Your task to perform on an android device: turn notification dots off Image 0: 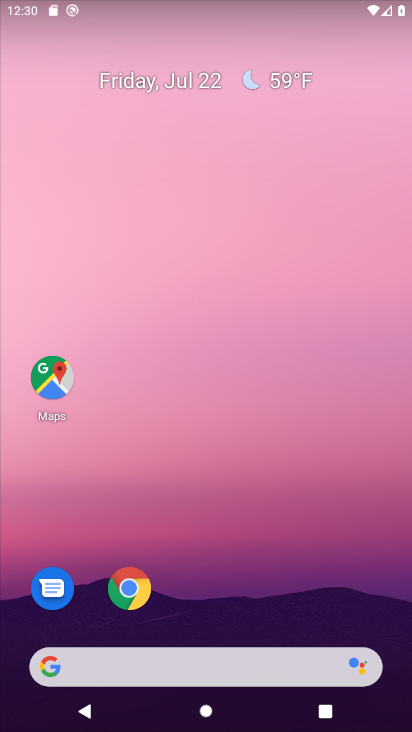
Step 0: drag from (245, 512) to (254, 285)
Your task to perform on an android device: turn notification dots off Image 1: 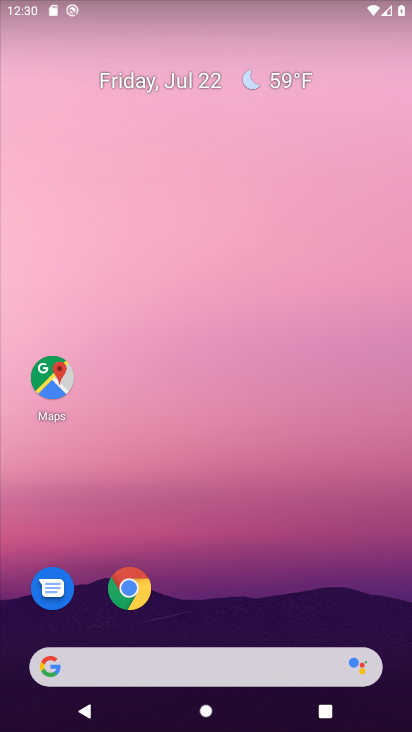
Step 1: drag from (213, 576) to (216, 203)
Your task to perform on an android device: turn notification dots off Image 2: 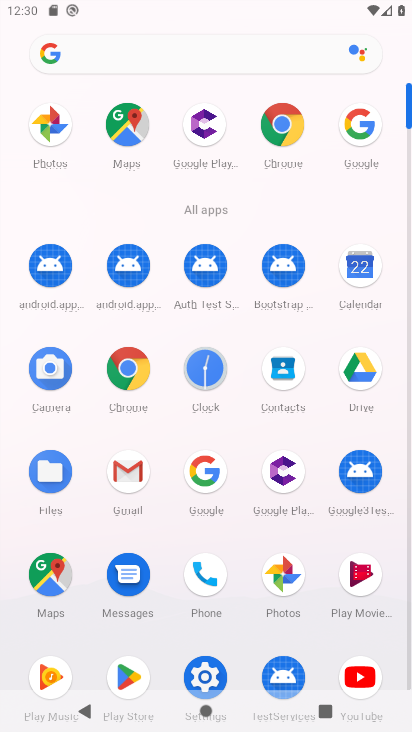
Step 2: click (202, 669)
Your task to perform on an android device: turn notification dots off Image 3: 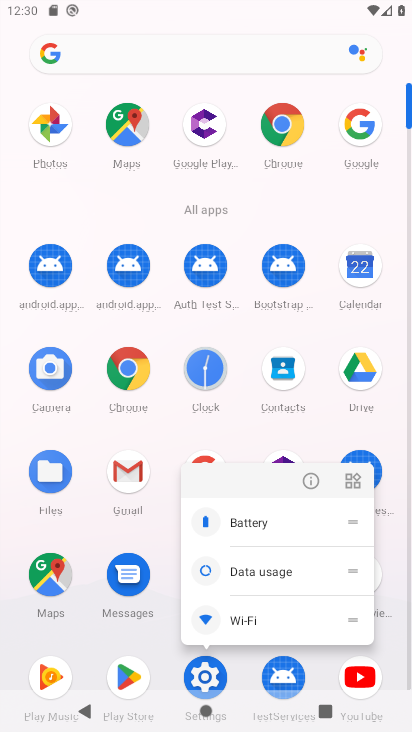
Step 3: click (213, 678)
Your task to perform on an android device: turn notification dots off Image 4: 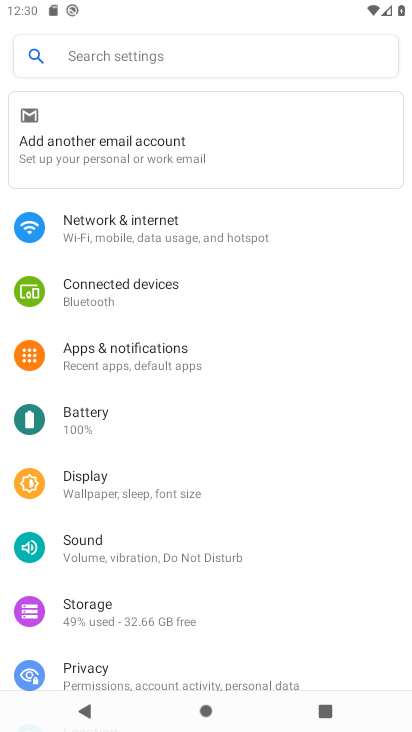
Step 4: click (126, 349)
Your task to perform on an android device: turn notification dots off Image 5: 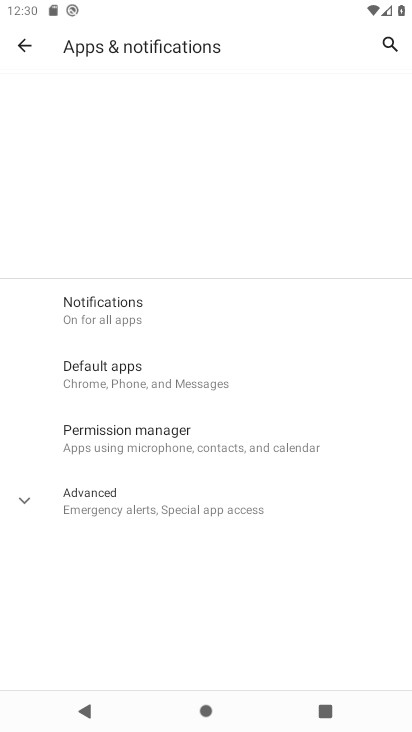
Step 5: click (108, 318)
Your task to perform on an android device: turn notification dots off Image 6: 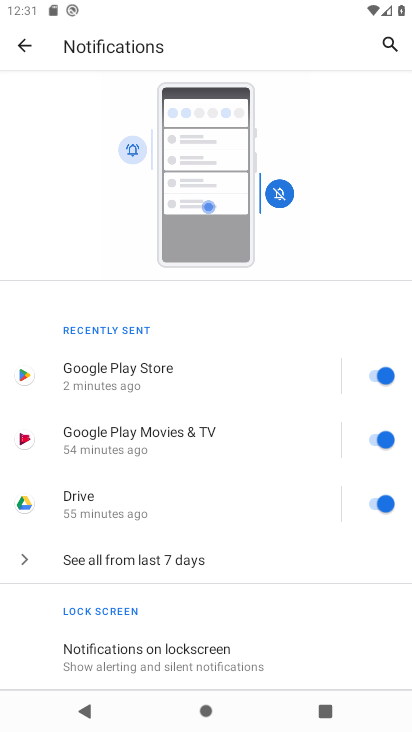
Step 6: drag from (132, 618) to (176, 186)
Your task to perform on an android device: turn notification dots off Image 7: 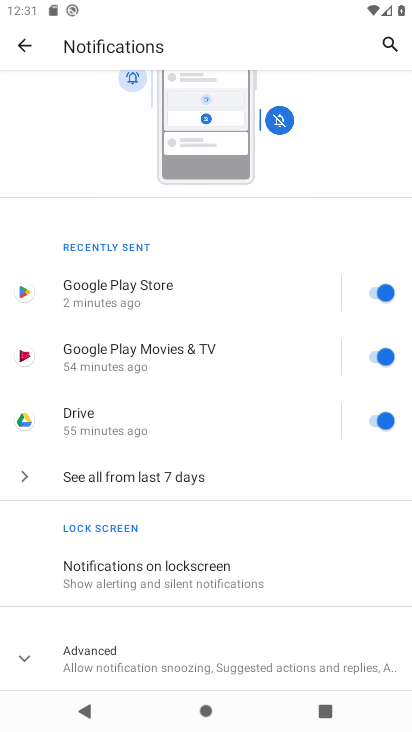
Step 7: click (84, 654)
Your task to perform on an android device: turn notification dots off Image 8: 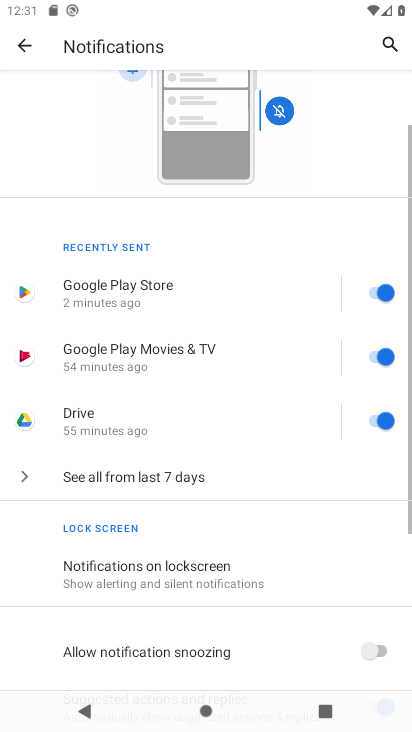
Step 8: drag from (184, 623) to (244, 289)
Your task to perform on an android device: turn notification dots off Image 9: 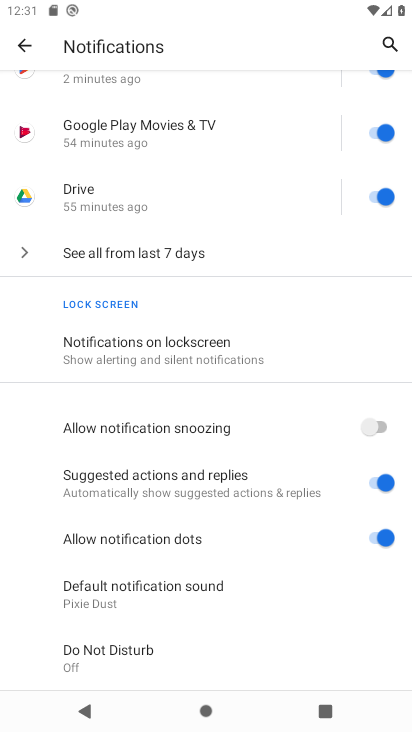
Step 9: click (376, 542)
Your task to perform on an android device: turn notification dots off Image 10: 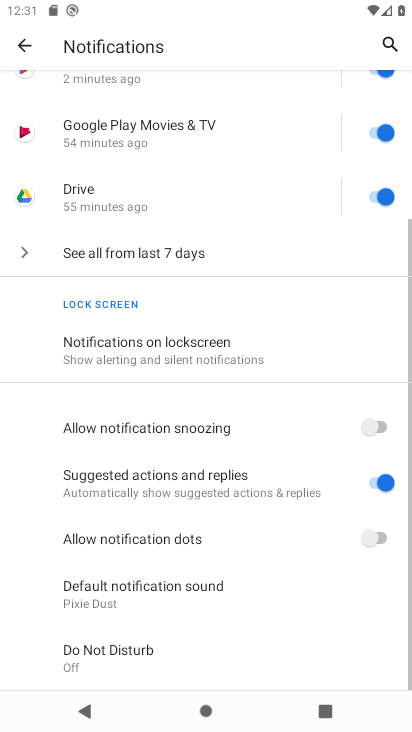
Step 10: task complete